Your task to perform on an android device: turn off improve location accuracy Image 0: 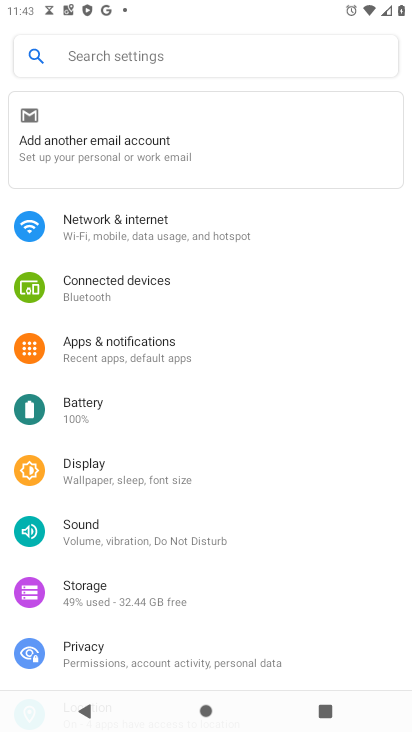
Step 0: press home button
Your task to perform on an android device: turn off improve location accuracy Image 1: 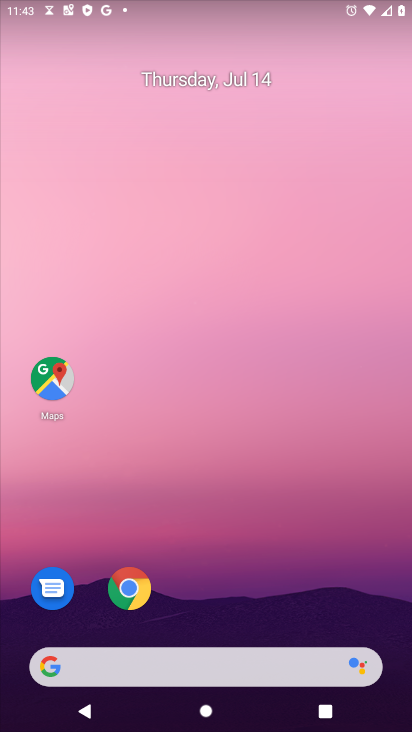
Step 1: drag from (158, 678) to (332, 2)
Your task to perform on an android device: turn off improve location accuracy Image 2: 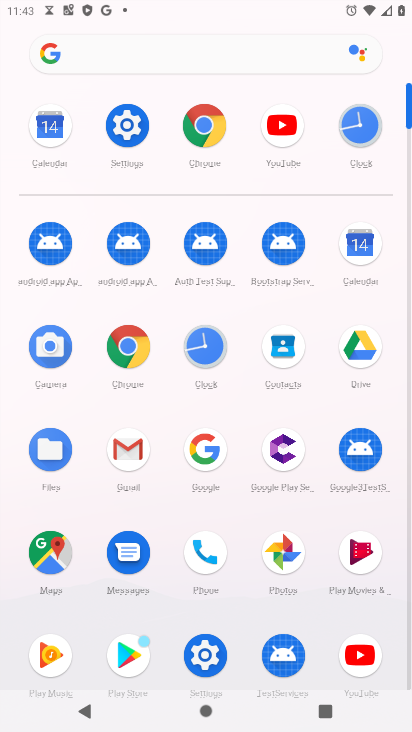
Step 2: click (128, 122)
Your task to perform on an android device: turn off improve location accuracy Image 3: 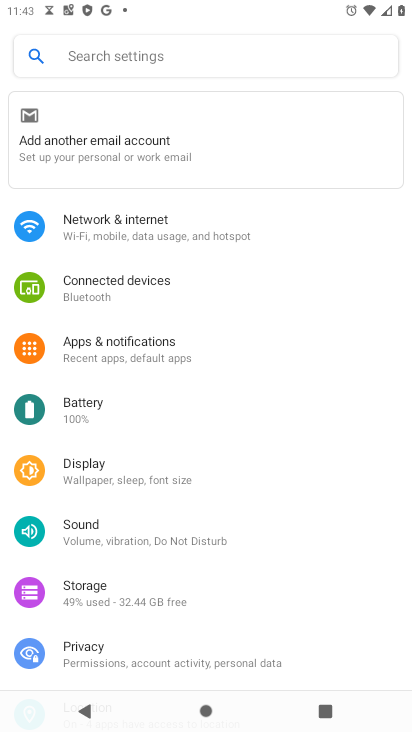
Step 3: drag from (295, 481) to (368, 85)
Your task to perform on an android device: turn off improve location accuracy Image 4: 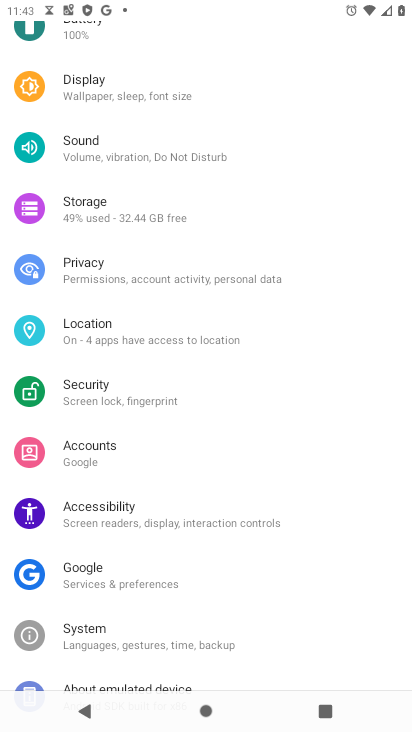
Step 4: click (102, 333)
Your task to perform on an android device: turn off improve location accuracy Image 5: 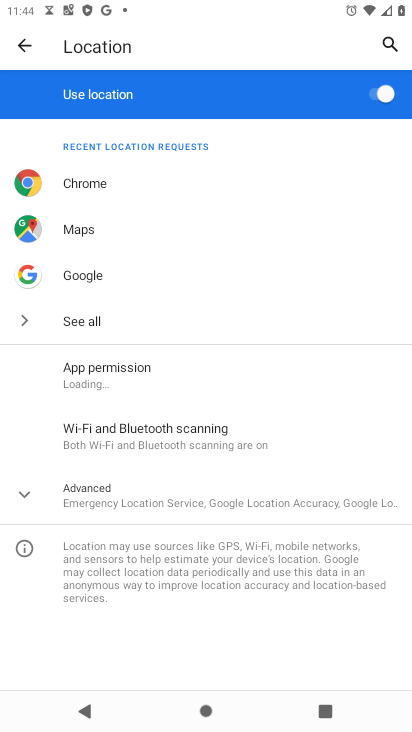
Step 5: click (115, 501)
Your task to perform on an android device: turn off improve location accuracy Image 6: 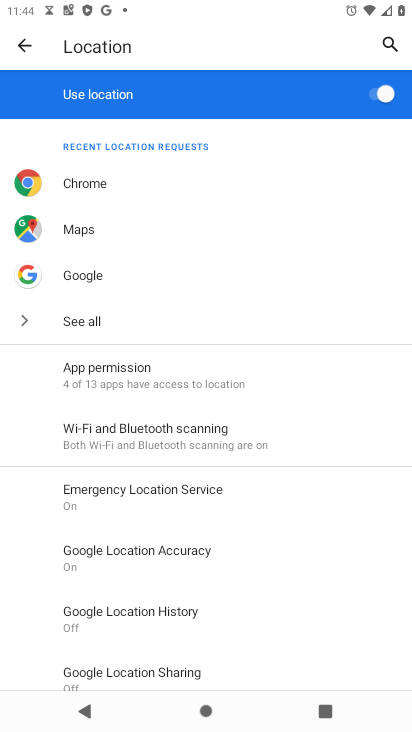
Step 6: click (164, 570)
Your task to perform on an android device: turn off improve location accuracy Image 7: 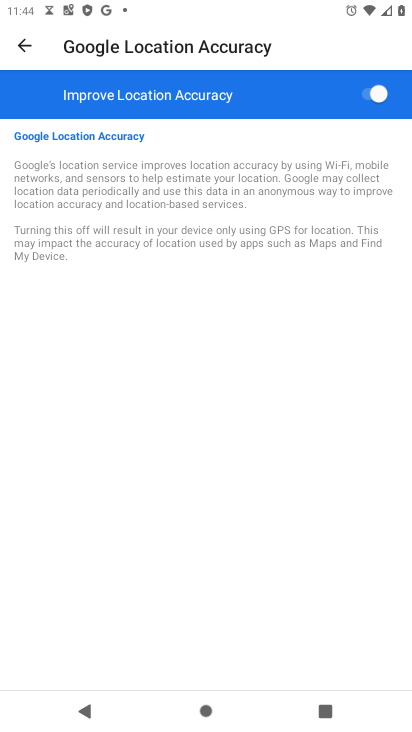
Step 7: click (365, 96)
Your task to perform on an android device: turn off improve location accuracy Image 8: 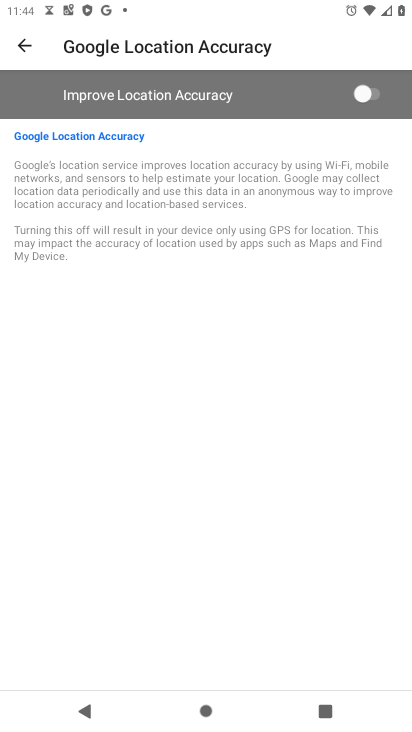
Step 8: task complete